Your task to perform on an android device: Search for Mexican restaurants on Maps Image 0: 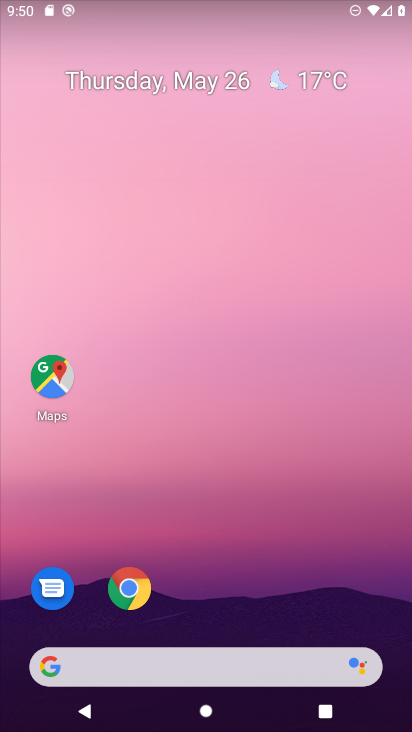
Step 0: click (52, 374)
Your task to perform on an android device: Search for Mexican restaurants on Maps Image 1: 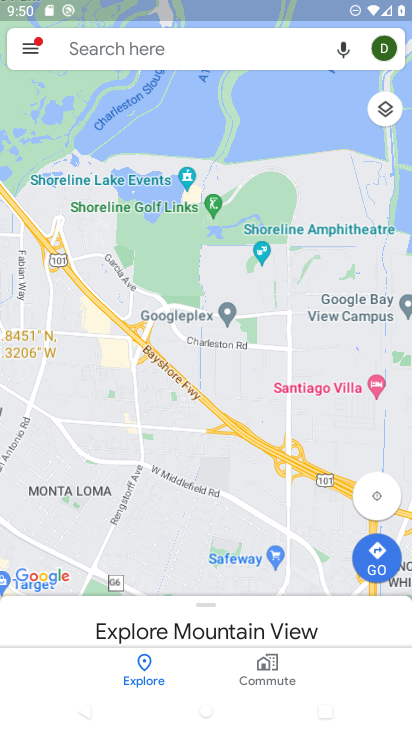
Step 1: click (184, 37)
Your task to perform on an android device: Search for Mexican restaurants on Maps Image 2: 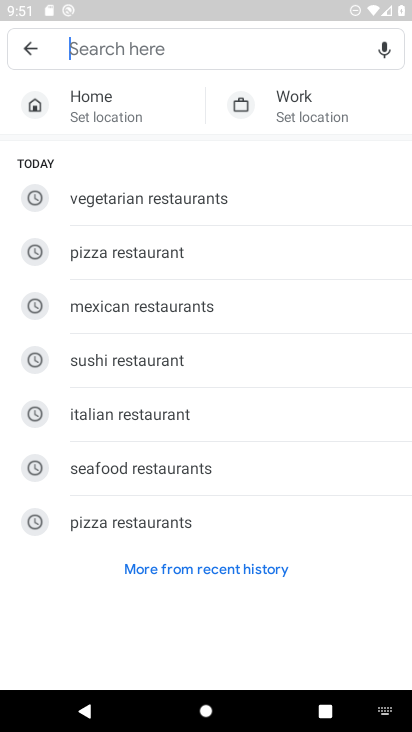
Step 2: type "mexican restaurants"
Your task to perform on an android device: Search for Mexican restaurants on Maps Image 3: 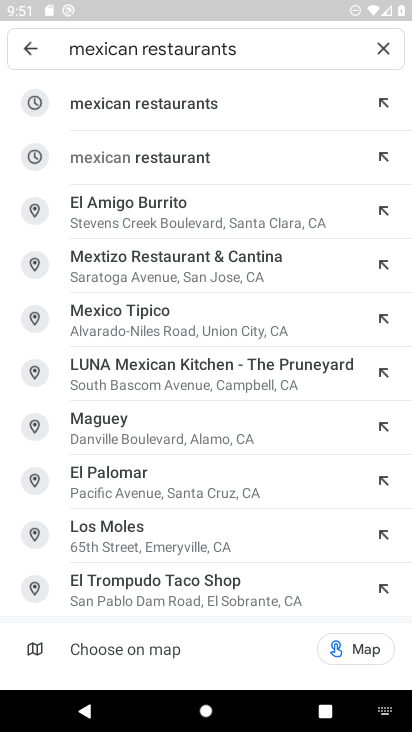
Step 3: click (135, 117)
Your task to perform on an android device: Search for Mexican restaurants on Maps Image 4: 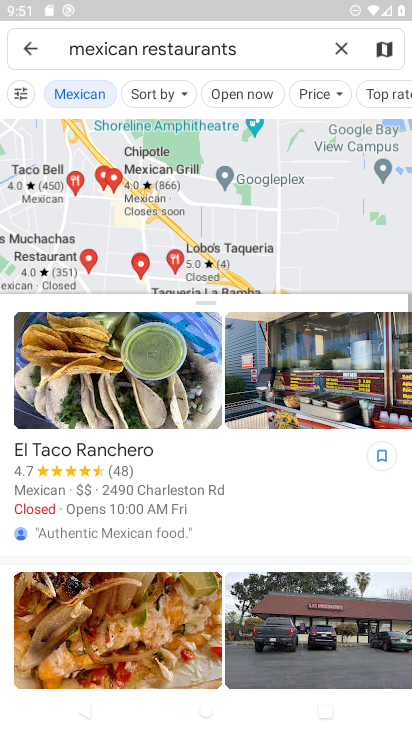
Step 4: task complete